Your task to perform on an android device: toggle data saver in the chrome app Image 0: 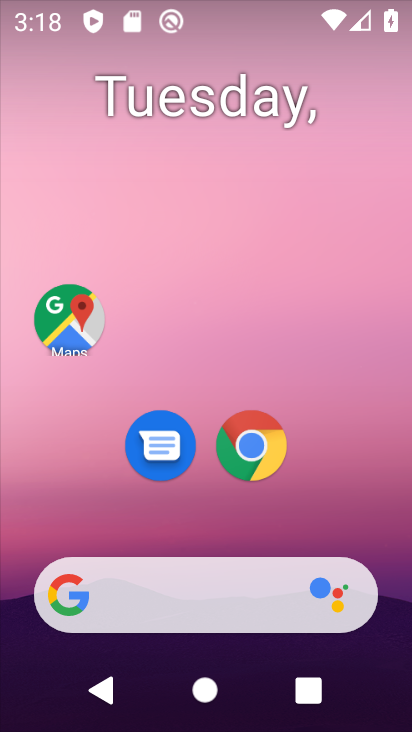
Step 0: click (254, 454)
Your task to perform on an android device: toggle data saver in the chrome app Image 1: 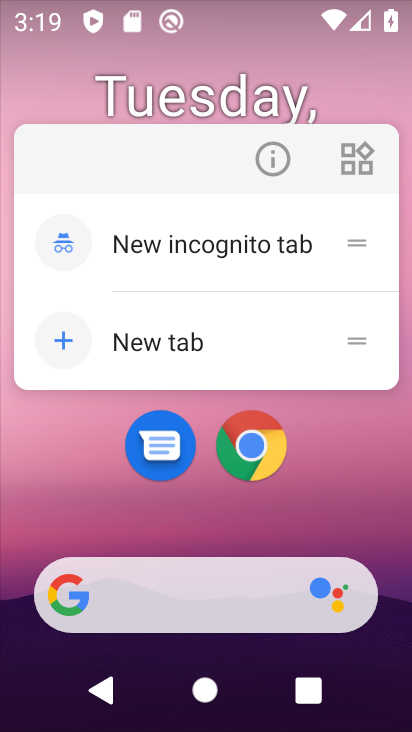
Step 1: click (247, 463)
Your task to perform on an android device: toggle data saver in the chrome app Image 2: 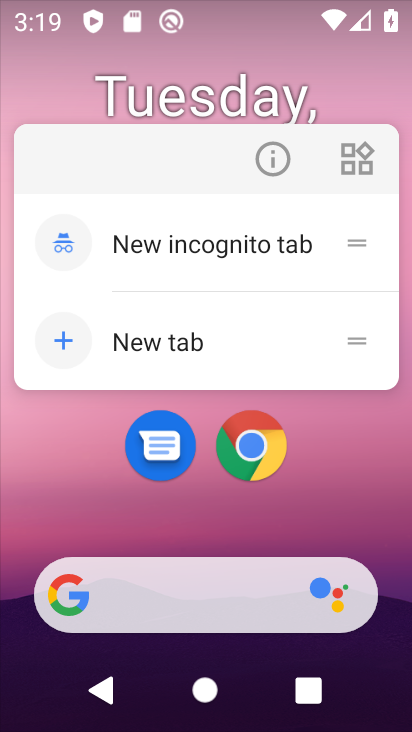
Step 2: click (247, 463)
Your task to perform on an android device: toggle data saver in the chrome app Image 3: 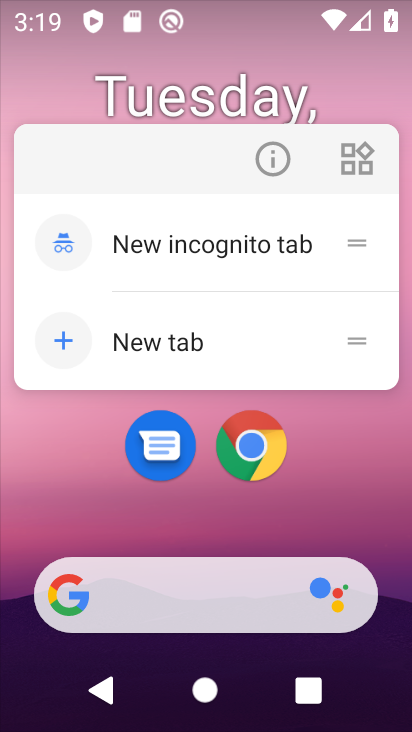
Step 3: click (256, 453)
Your task to perform on an android device: toggle data saver in the chrome app Image 4: 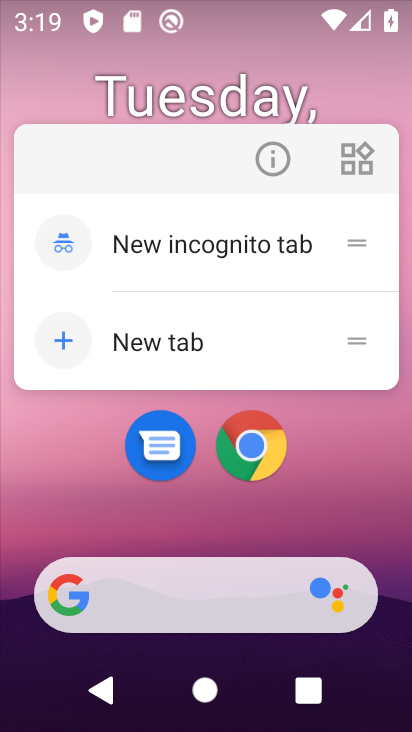
Step 4: click (256, 453)
Your task to perform on an android device: toggle data saver in the chrome app Image 5: 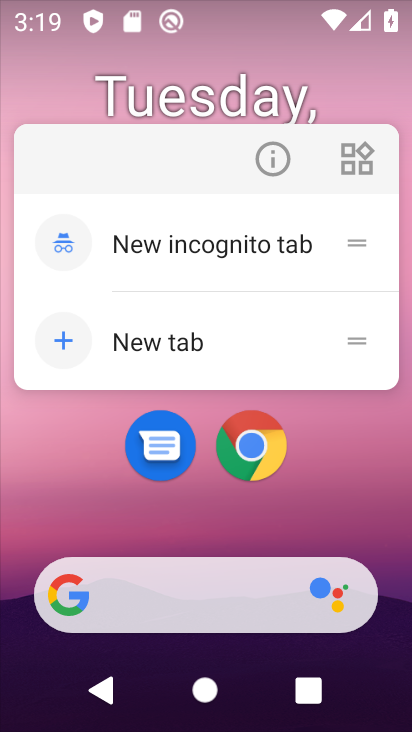
Step 5: click (256, 453)
Your task to perform on an android device: toggle data saver in the chrome app Image 6: 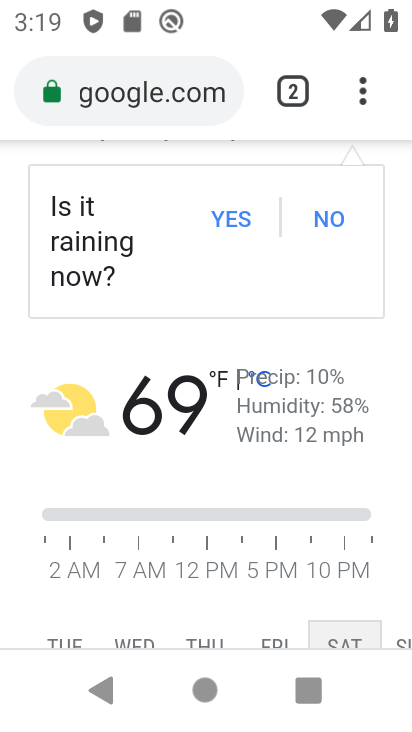
Step 6: drag from (365, 96) to (172, 476)
Your task to perform on an android device: toggle data saver in the chrome app Image 7: 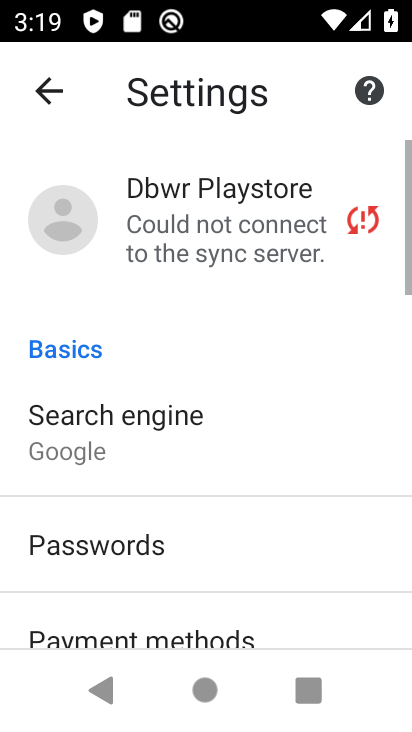
Step 7: drag from (138, 562) to (133, 215)
Your task to perform on an android device: toggle data saver in the chrome app Image 8: 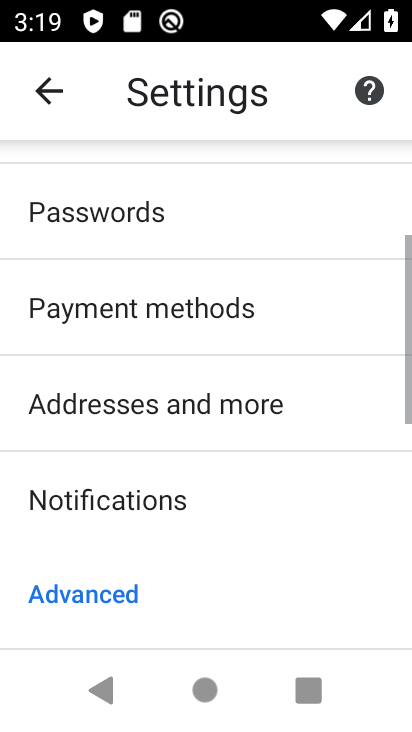
Step 8: drag from (121, 624) to (121, 278)
Your task to perform on an android device: toggle data saver in the chrome app Image 9: 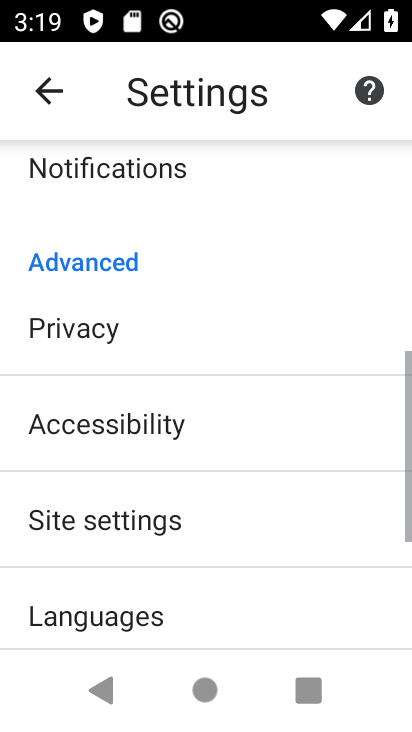
Step 9: drag from (109, 621) to (107, 468)
Your task to perform on an android device: toggle data saver in the chrome app Image 10: 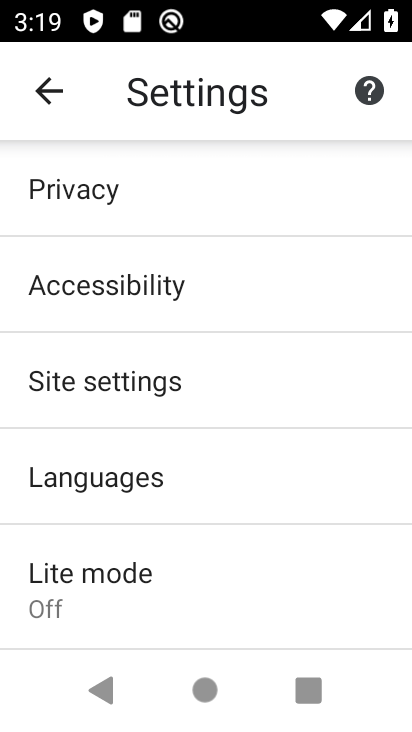
Step 10: click (74, 600)
Your task to perform on an android device: toggle data saver in the chrome app Image 11: 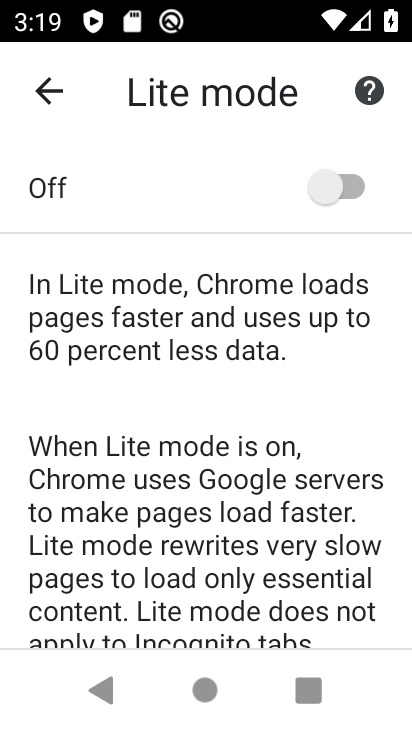
Step 11: click (361, 183)
Your task to perform on an android device: toggle data saver in the chrome app Image 12: 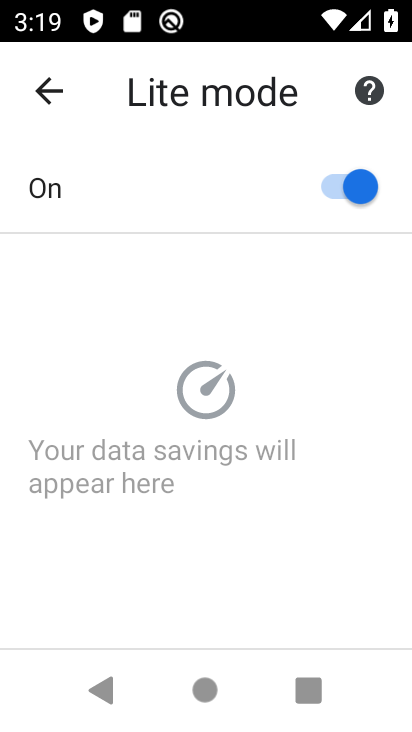
Step 12: task complete